Your task to perform on an android device: Find coffee shops on Maps Image 0: 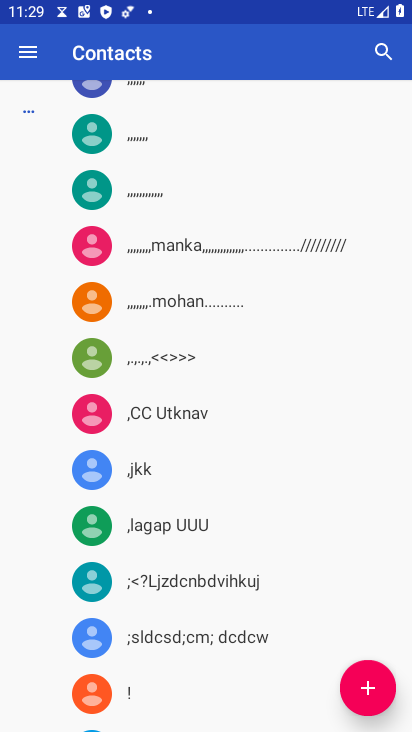
Step 0: press back button
Your task to perform on an android device: Find coffee shops on Maps Image 1: 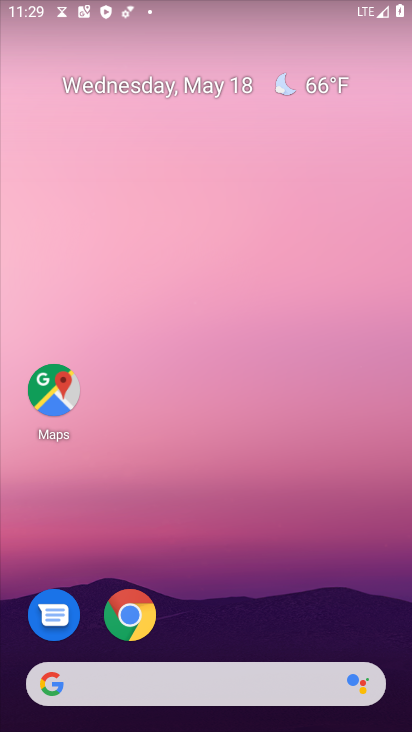
Step 1: drag from (248, 510) to (243, 49)
Your task to perform on an android device: Find coffee shops on Maps Image 2: 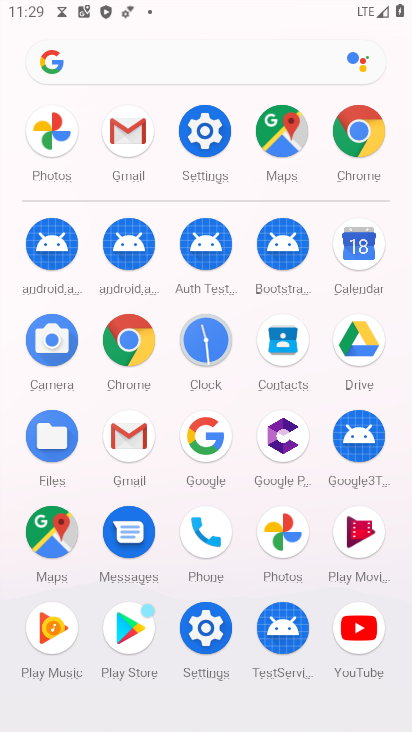
Step 2: click (49, 534)
Your task to perform on an android device: Find coffee shops on Maps Image 3: 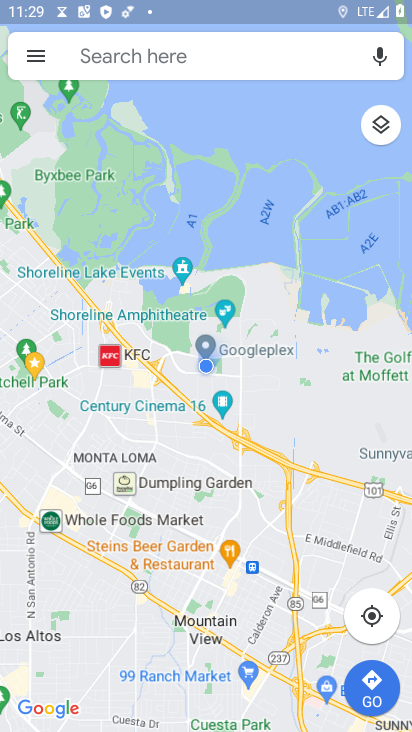
Step 3: click (215, 49)
Your task to perform on an android device: Find coffee shops on Maps Image 4: 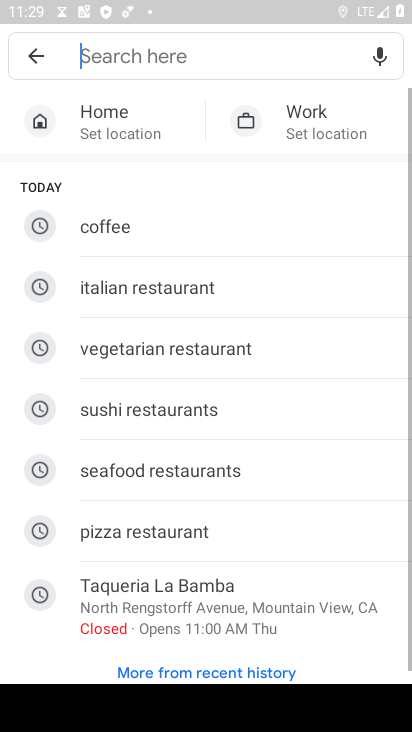
Step 4: click (151, 227)
Your task to perform on an android device: Find coffee shops on Maps Image 5: 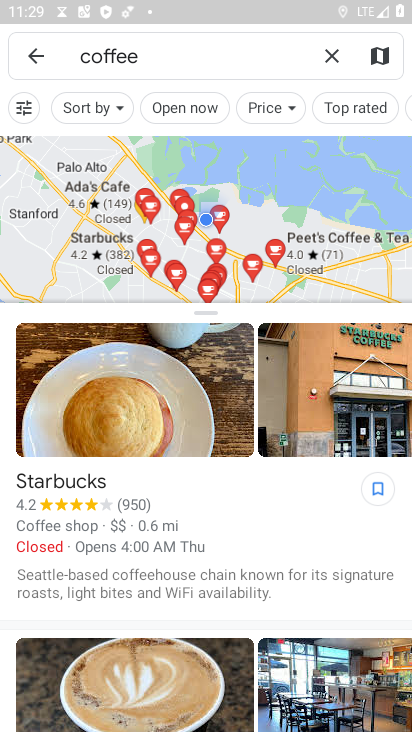
Step 5: task complete